Your task to perform on an android device: Show the shopping cart on walmart.com. Search for asus zenbook on walmart.com, select the first entry, and add it to the cart. Image 0: 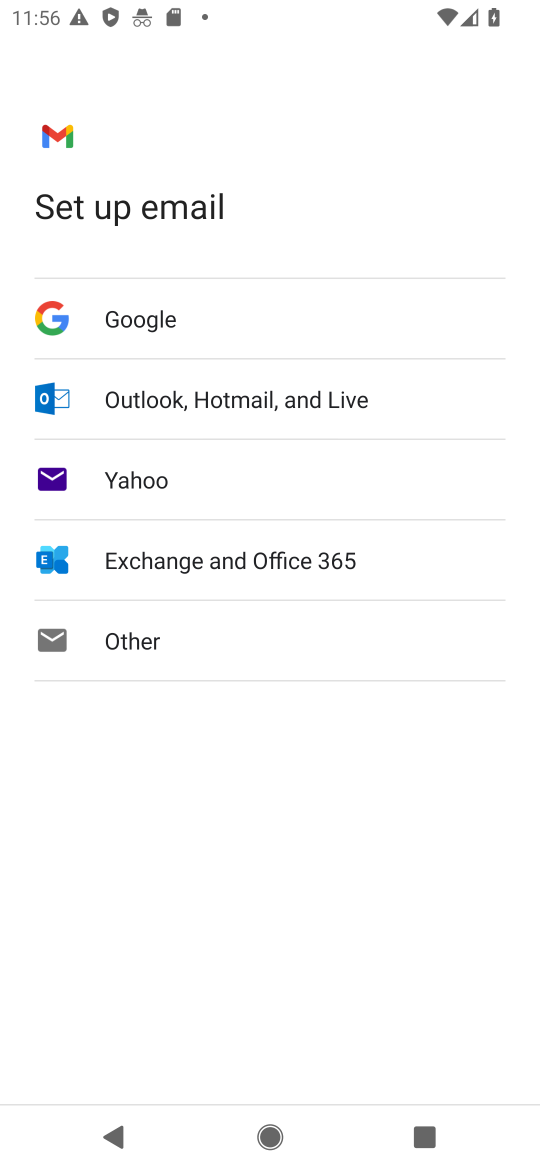
Step 0: press home button
Your task to perform on an android device: Show the shopping cart on walmart.com. Search for asus zenbook on walmart.com, select the first entry, and add it to the cart. Image 1: 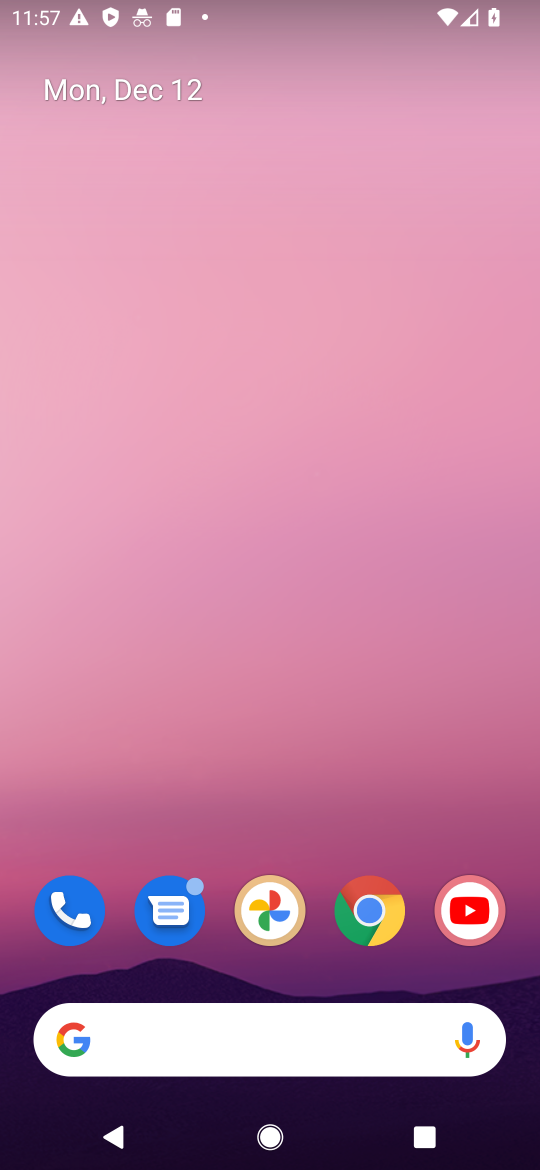
Step 1: click (369, 910)
Your task to perform on an android device: Show the shopping cart on walmart.com. Search for asus zenbook on walmart.com, select the first entry, and add it to the cart. Image 2: 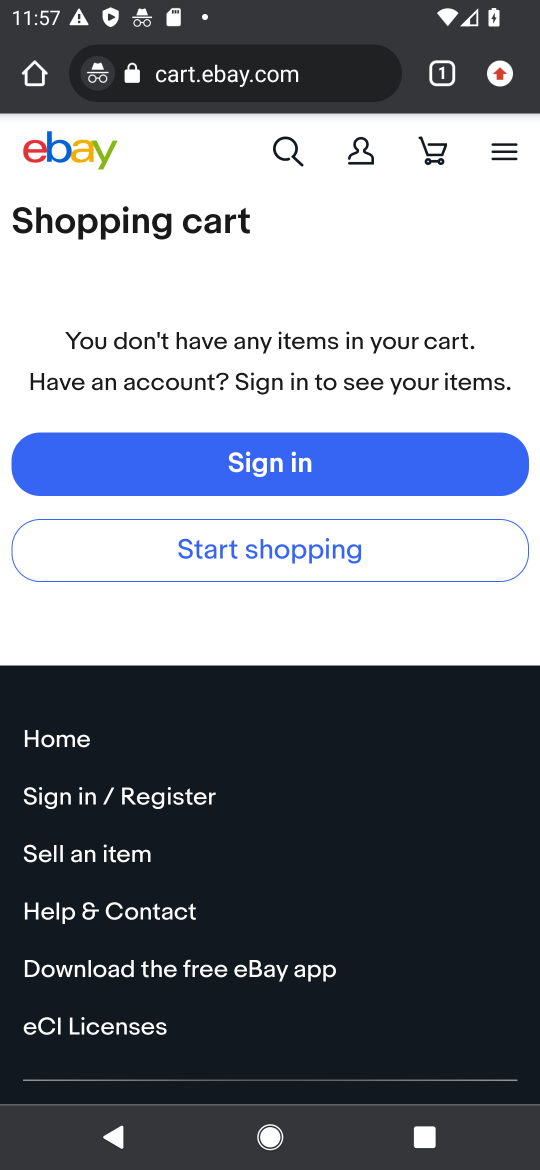
Step 2: click (273, 75)
Your task to perform on an android device: Show the shopping cart on walmart.com. Search for asus zenbook on walmart.com, select the first entry, and add it to the cart. Image 3: 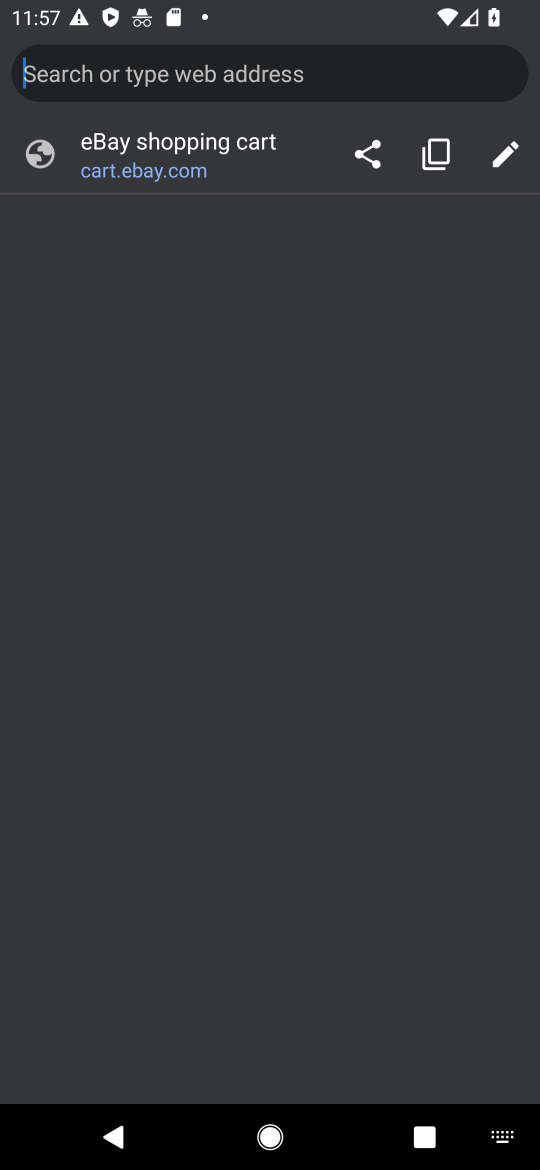
Step 3: type "WALMART"
Your task to perform on an android device: Show the shopping cart on walmart.com. Search for asus zenbook on walmart.com, select the first entry, and add it to the cart. Image 4: 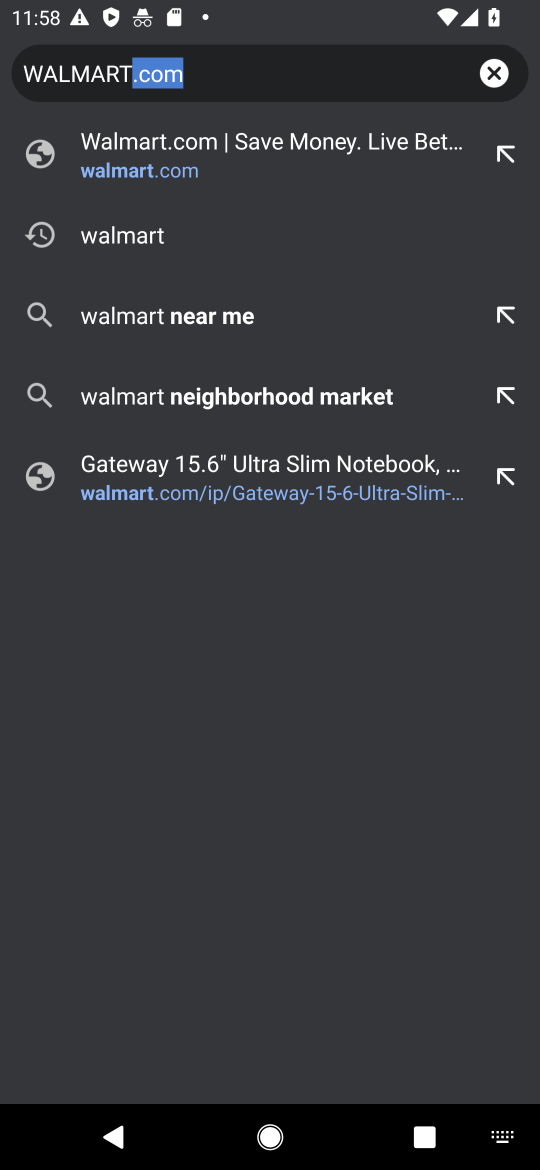
Step 4: click (197, 156)
Your task to perform on an android device: Show the shopping cart on walmart.com. Search for asus zenbook on walmart.com, select the first entry, and add it to the cart. Image 5: 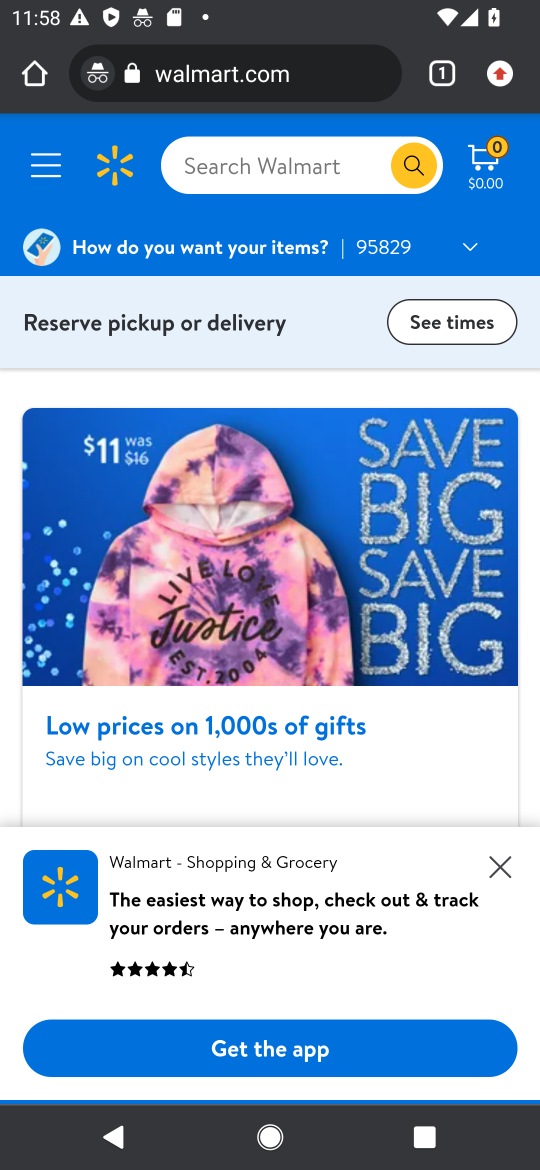
Step 5: click (290, 173)
Your task to perform on an android device: Show the shopping cart on walmart.com. Search for asus zenbook on walmart.com, select the first entry, and add it to the cart. Image 6: 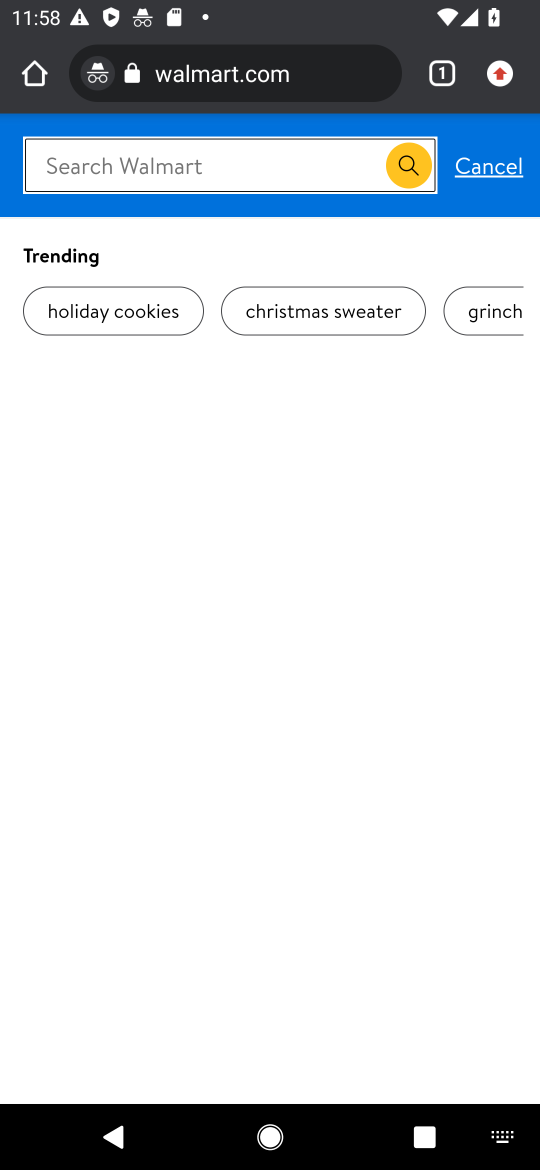
Step 6: type " asus zenbook"
Your task to perform on an android device: Show the shopping cart on walmart.com. Search for asus zenbook on walmart.com, select the first entry, and add it to the cart. Image 7: 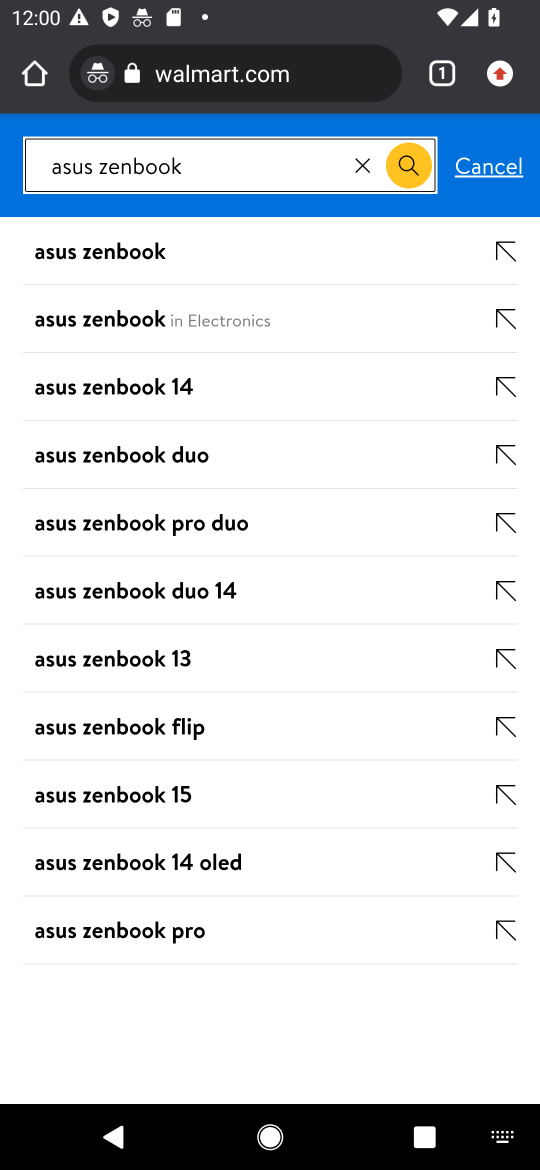
Step 7: click (142, 254)
Your task to perform on an android device: Show the shopping cart on walmart.com. Search for asus zenbook on walmart.com, select the first entry, and add it to the cart. Image 8: 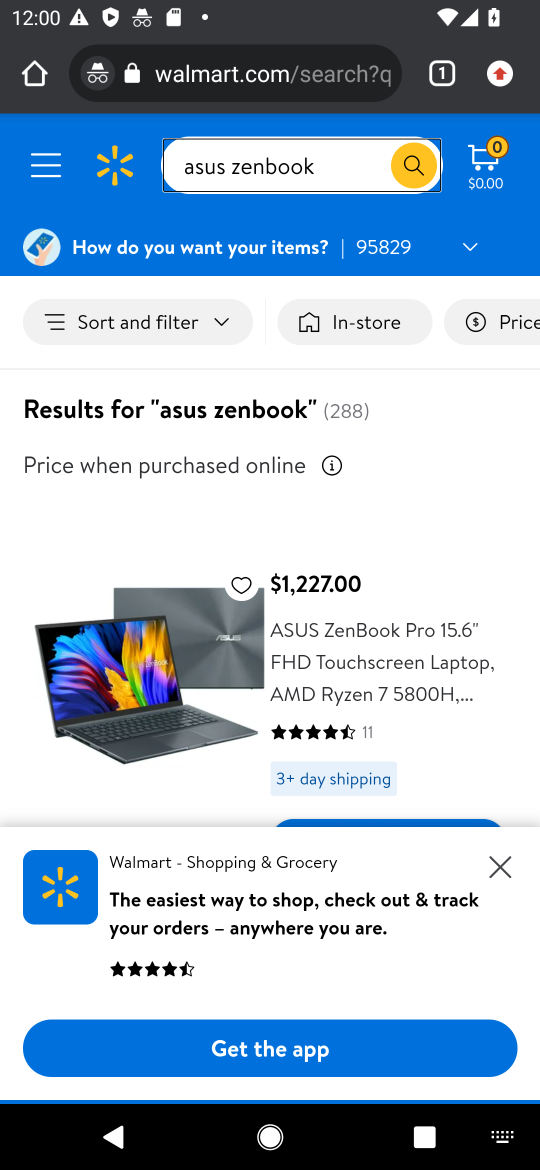
Step 8: click (500, 868)
Your task to perform on an android device: Show the shopping cart on walmart.com. Search for asus zenbook on walmart.com, select the first entry, and add it to the cart. Image 9: 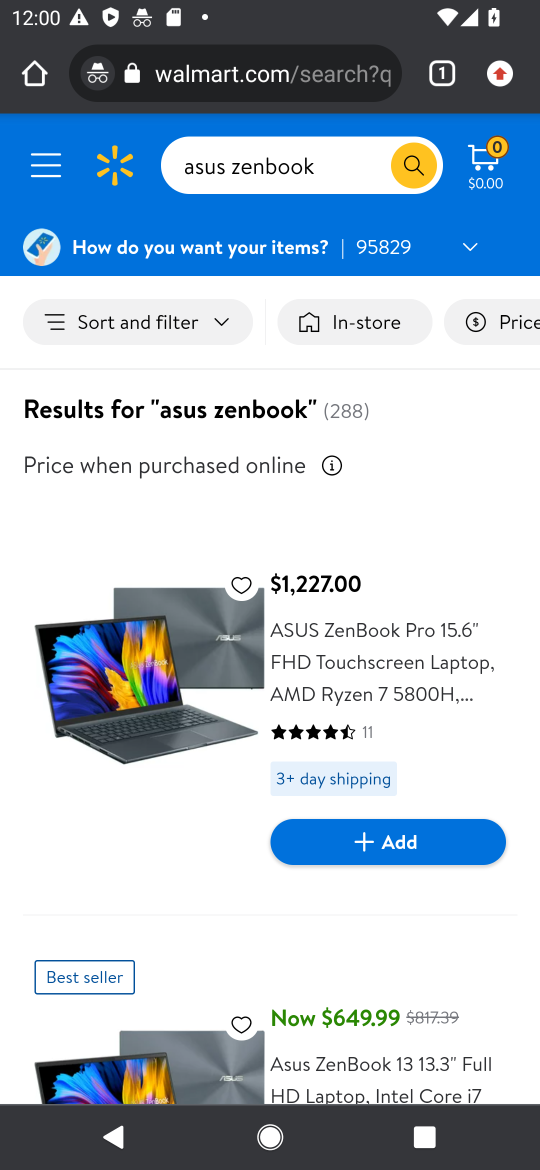
Step 9: click (414, 843)
Your task to perform on an android device: Show the shopping cart on walmart.com. Search for asus zenbook on walmart.com, select the first entry, and add it to the cart. Image 10: 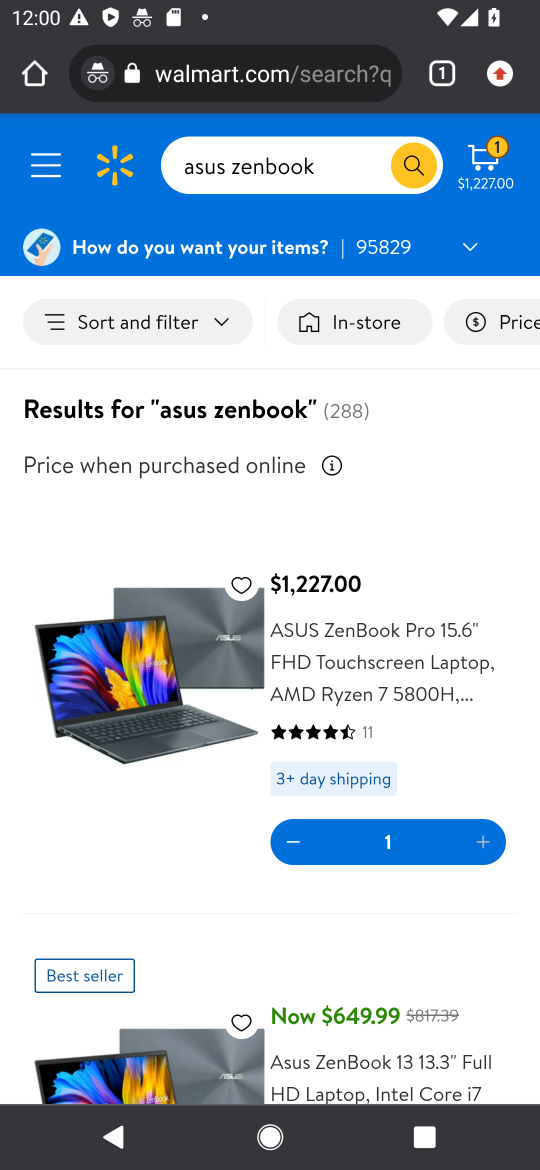
Step 10: task complete